Your task to perform on an android device: toggle sleep mode Image 0: 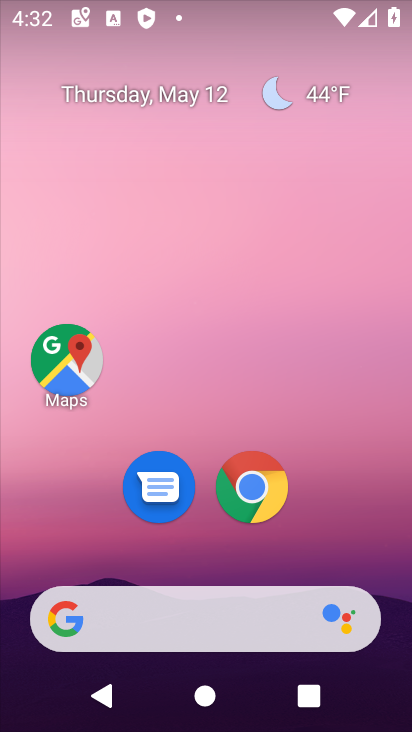
Step 0: drag from (261, 585) to (275, 179)
Your task to perform on an android device: toggle sleep mode Image 1: 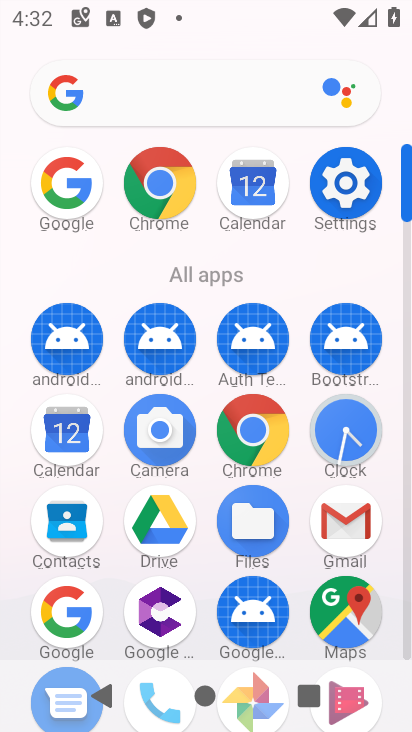
Step 1: click (353, 208)
Your task to perform on an android device: toggle sleep mode Image 2: 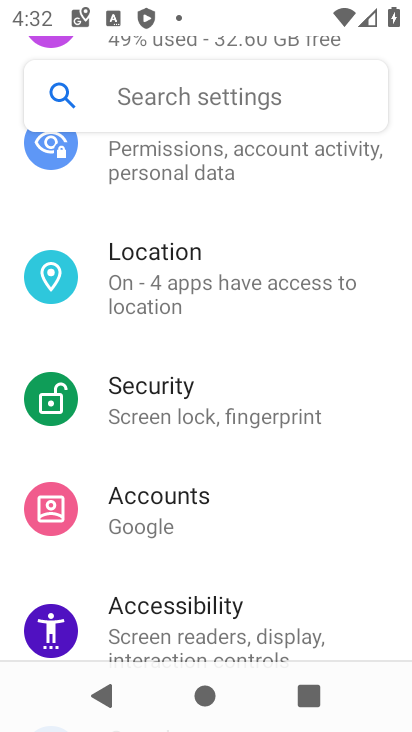
Step 2: drag from (319, 223) to (287, 581)
Your task to perform on an android device: toggle sleep mode Image 3: 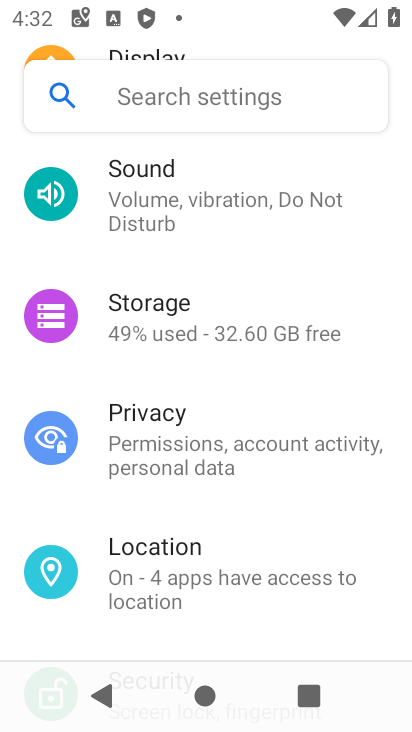
Step 3: drag from (295, 528) to (291, 579)
Your task to perform on an android device: toggle sleep mode Image 4: 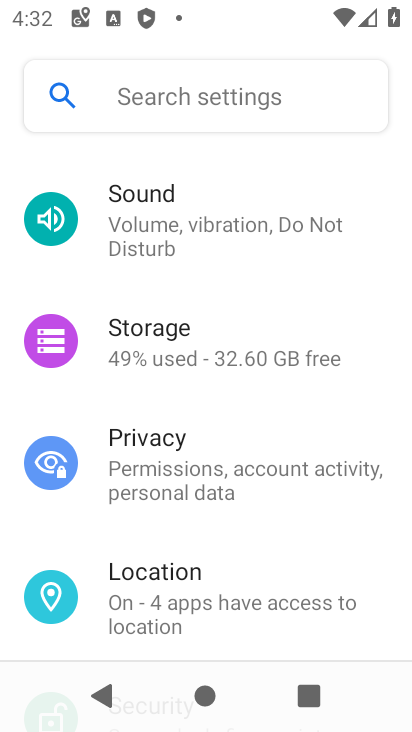
Step 4: drag from (237, 164) to (278, 475)
Your task to perform on an android device: toggle sleep mode Image 5: 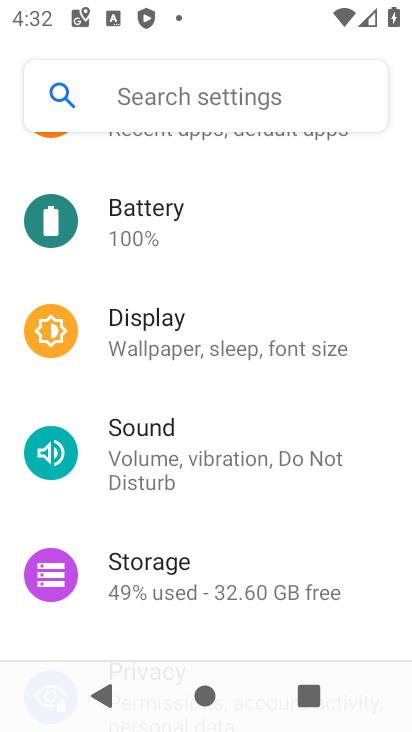
Step 5: click (225, 347)
Your task to perform on an android device: toggle sleep mode Image 6: 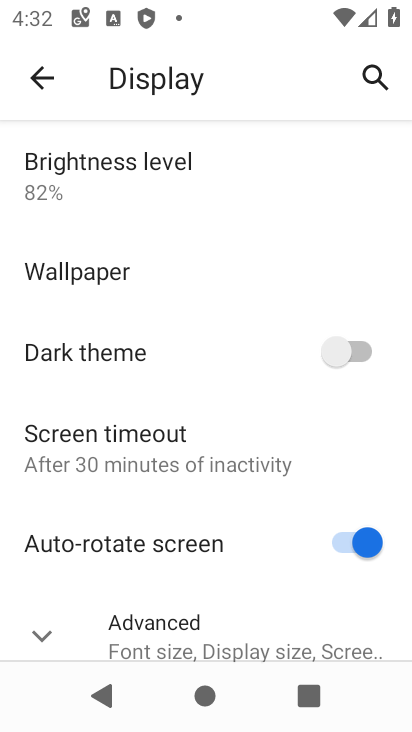
Step 6: click (205, 451)
Your task to perform on an android device: toggle sleep mode Image 7: 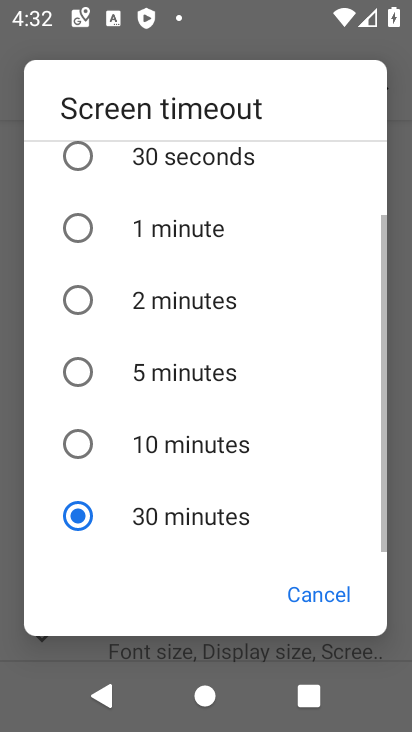
Step 7: click (149, 303)
Your task to perform on an android device: toggle sleep mode Image 8: 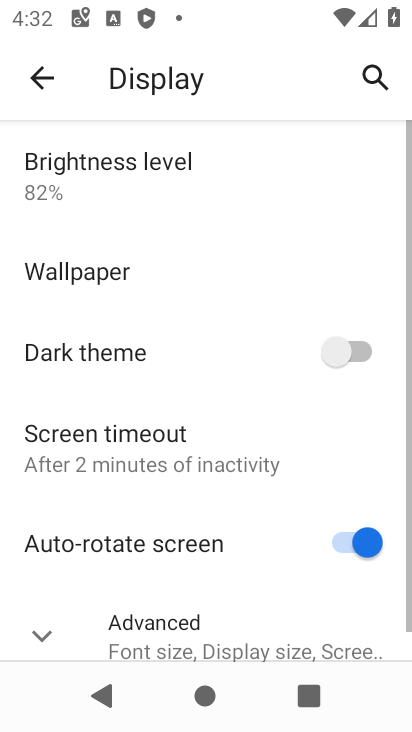
Step 8: task complete